Your task to perform on an android device: manage bookmarks in the chrome app Image 0: 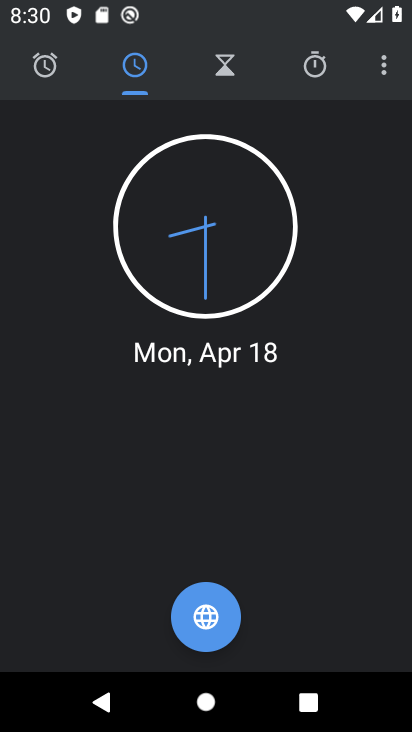
Step 0: press home button
Your task to perform on an android device: manage bookmarks in the chrome app Image 1: 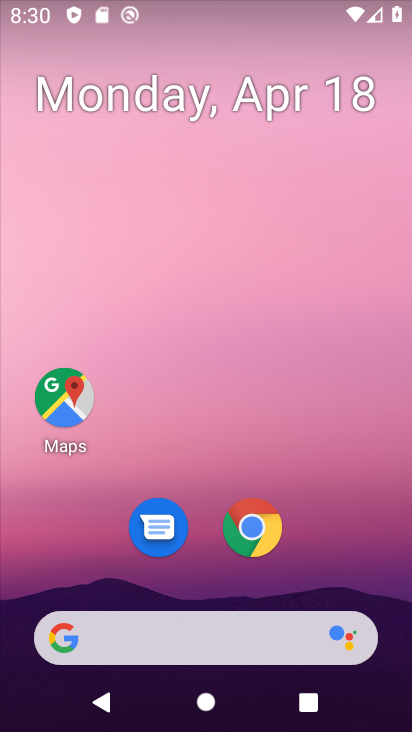
Step 1: drag from (338, 558) to (376, 33)
Your task to perform on an android device: manage bookmarks in the chrome app Image 2: 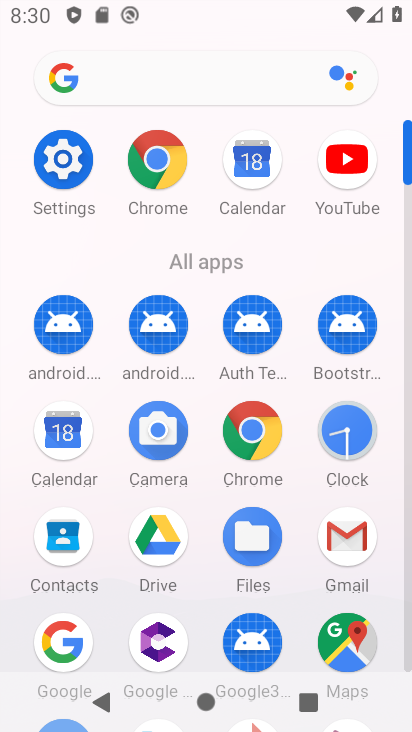
Step 2: click (263, 416)
Your task to perform on an android device: manage bookmarks in the chrome app Image 3: 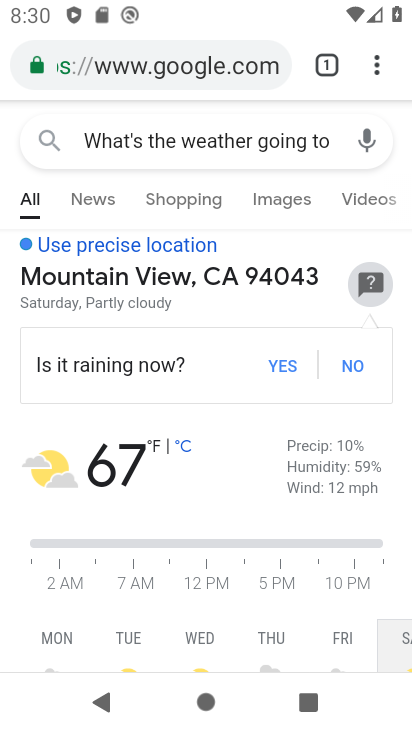
Step 3: drag from (376, 60) to (205, 341)
Your task to perform on an android device: manage bookmarks in the chrome app Image 4: 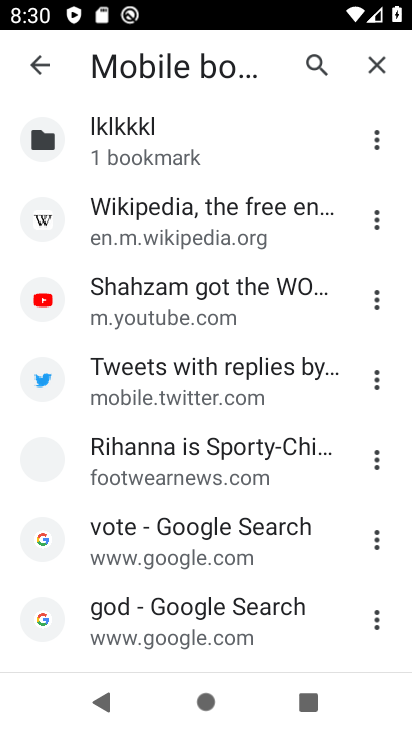
Step 4: click (373, 611)
Your task to perform on an android device: manage bookmarks in the chrome app Image 5: 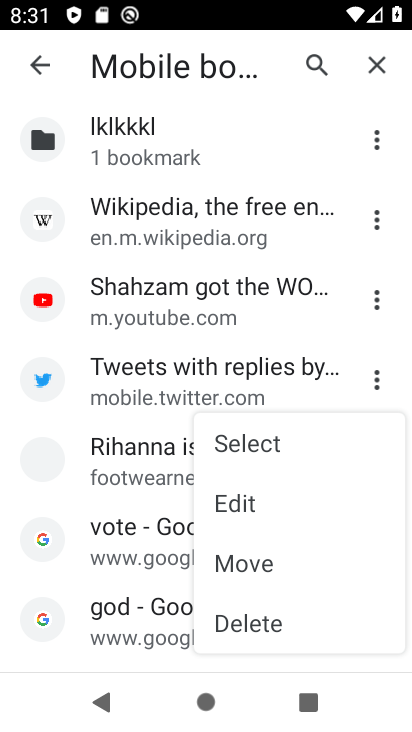
Step 5: click (259, 620)
Your task to perform on an android device: manage bookmarks in the chrome app Image 6: 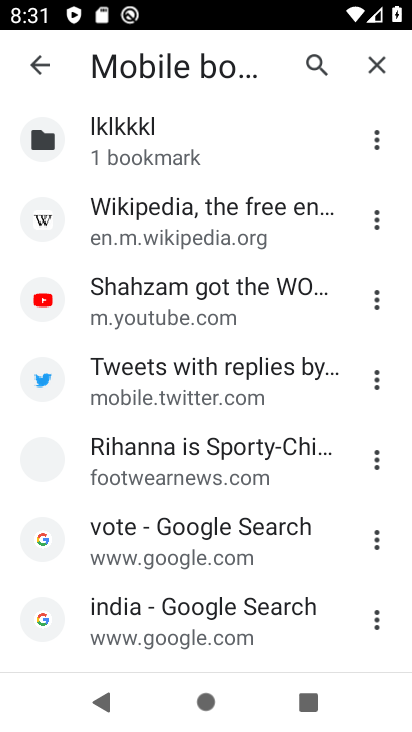
Step 6: task complete